Your task to perform on an android device: What is the recent news? Image 0: 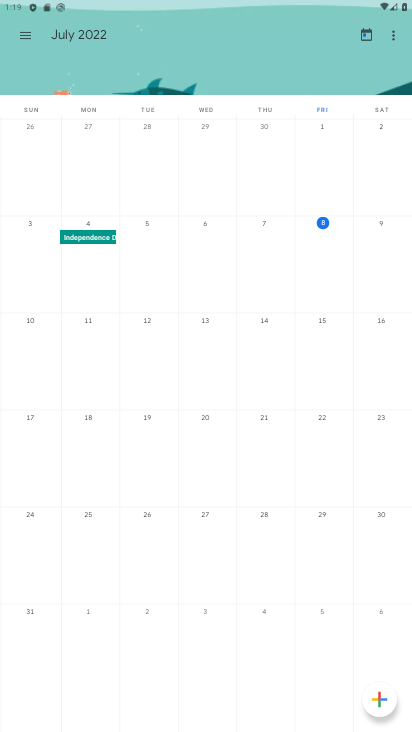
Step 0: press home button
Your task to perform on an android device: What is the recent news? Image 1: 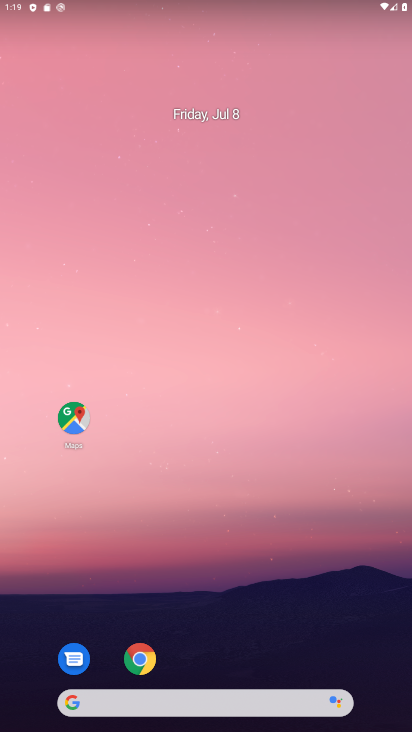
Step 1: drag from (199, 658) to (168, 150)
Your task to perform on an android device: What is the recent news? Image 2: 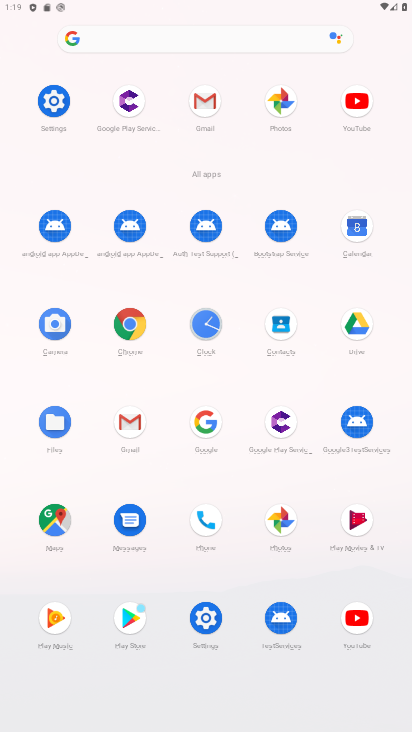
Step 2: click (207, 417)
Your task to perform on an android device: What is the recent news? Image 3: 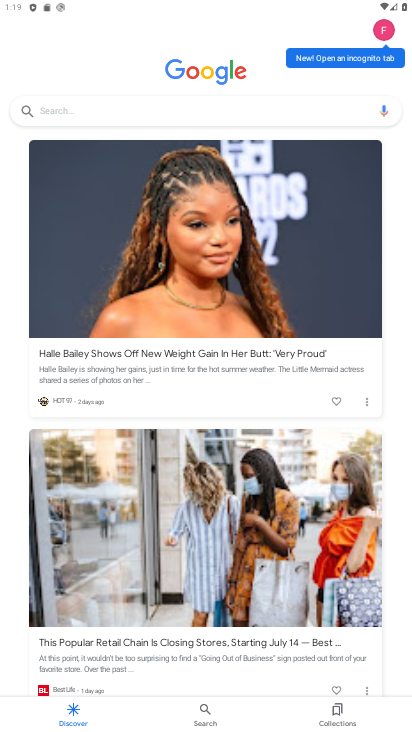
Step 3: click (140, 109)
Your task to perform on an android device: What is the recent news? Image 4: 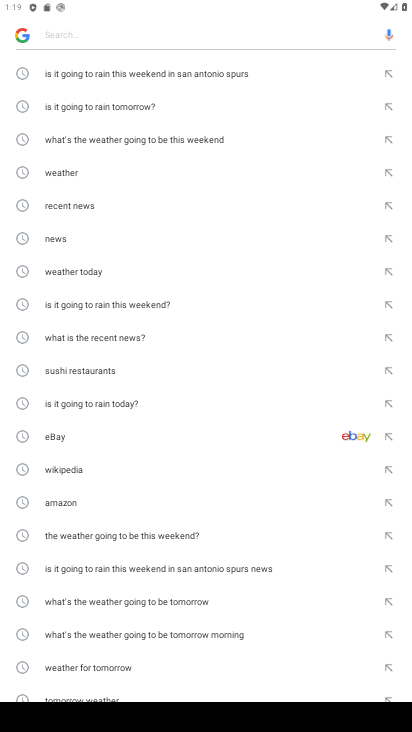
Step 4: type "recent news"
Your task to perform on an android device: What is the recent news? Image 5: 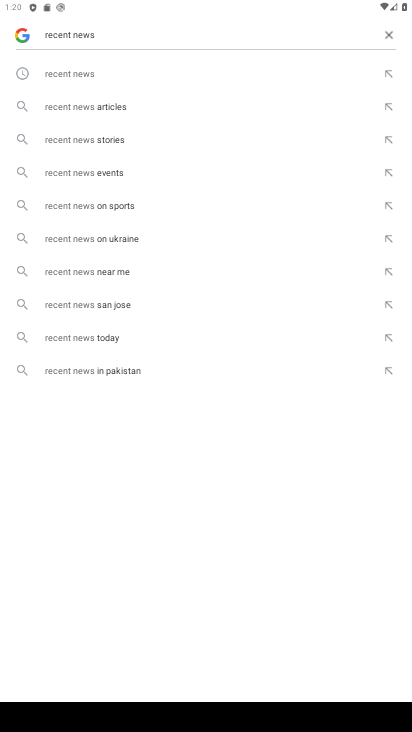
Step 5: click (78, 77)
Your task to perform on an android device: What is the recent news? Image 6: 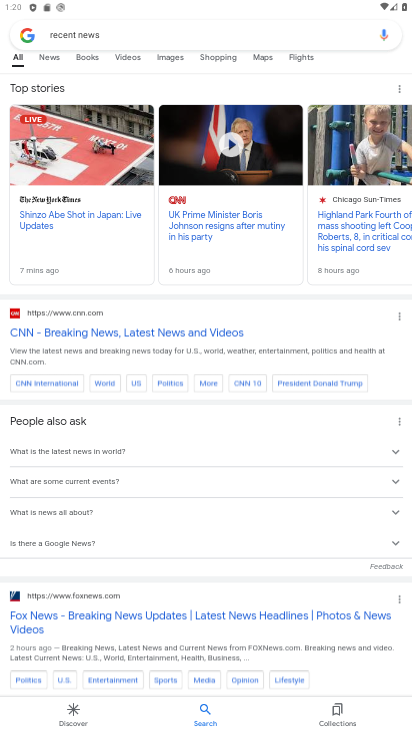
Step 6: click (100, 211)
Your task to perform on an android device: What is the recent news? Image 7: 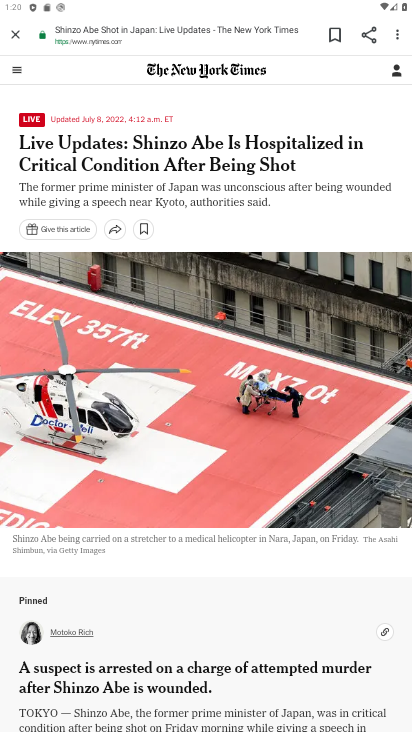
Step 7: task complete